Your task to perform on an android device: turn on javascript in the chrome app Image 0: 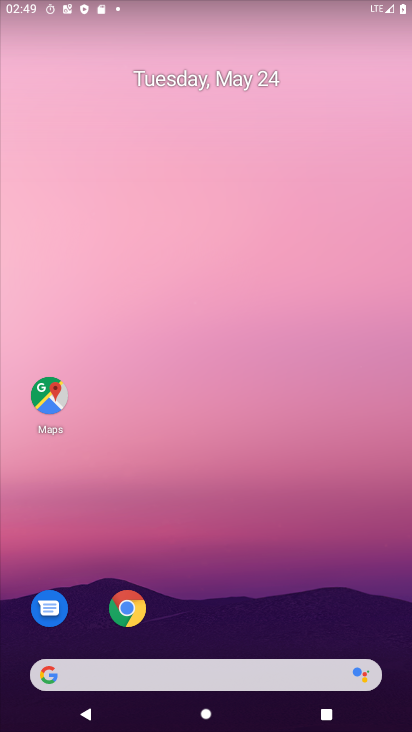
Step 0: click (133, 610)
Your task to perform on an android device: turn on javascript in the chrome app Image 1: 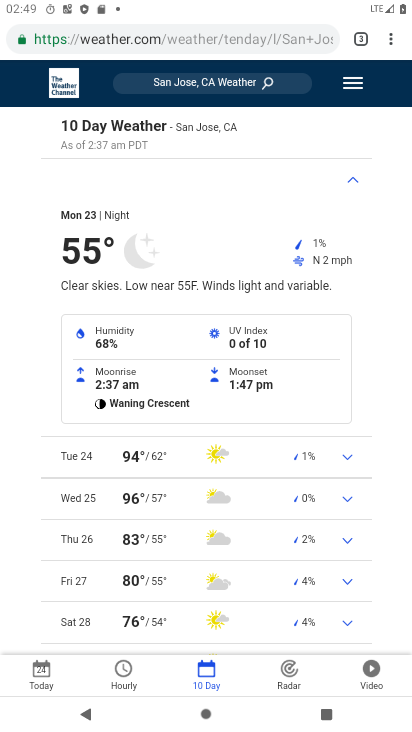
Step 1: click (391, 52)
Your task to perform on an android device: turn on javascript in the chrome app Image 2: 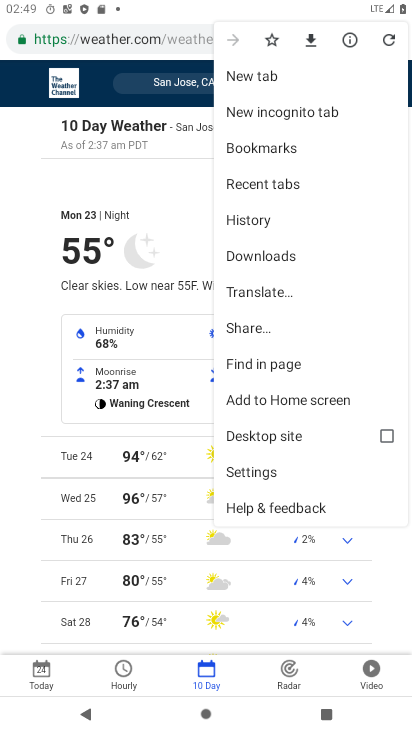
Step 2: click (264, 472)
Your task to perform on an android device: turn on javascript in the chrome app Image 3: 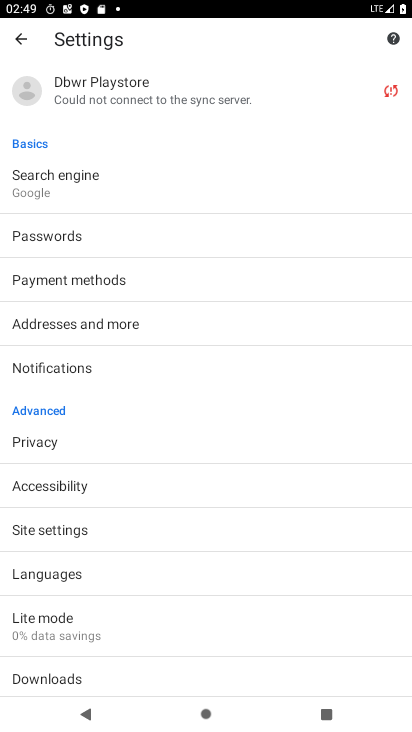
Step 3: click (95, 537)
Your task to perform on an android device: turn on javascript in the chrome app Image 4: 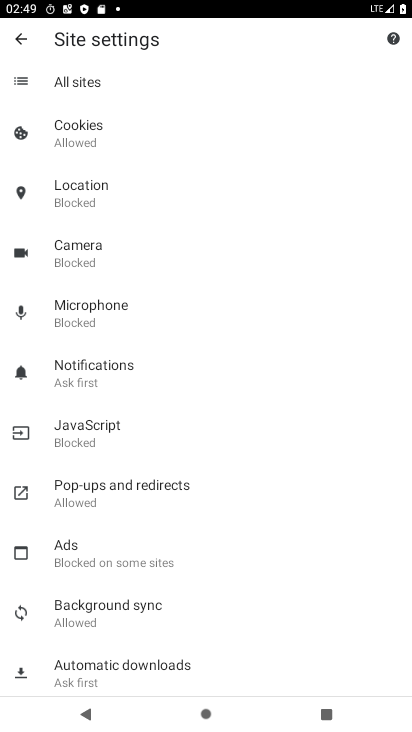
Step 4: click (122, 440)
Your task to perform on an android device: turn on javascript in the chrome app Image 5: 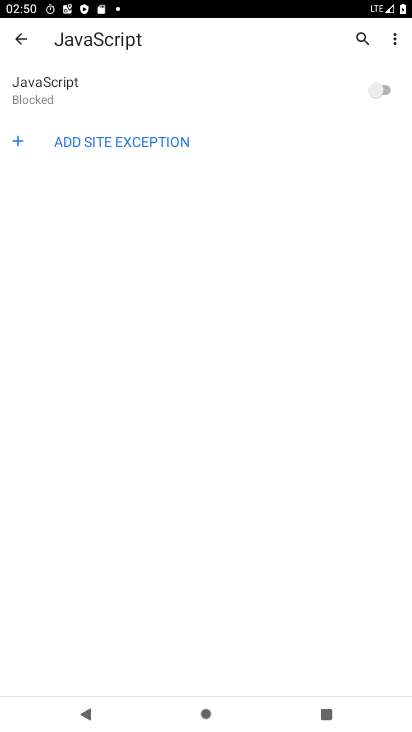
Step 5: click (388, 97)
Your task to perform on an android device: turn on javascript in the chrome app Image 6: 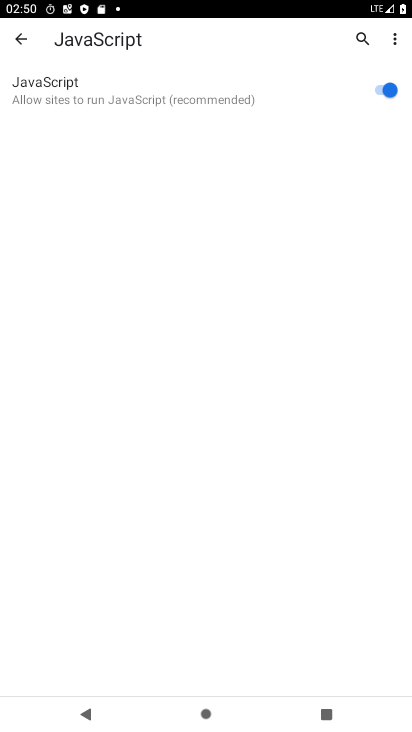
Step 6: task complete